Your task to perform on an android device: How do I get to the nearest T-Mobile Store? Image 0: 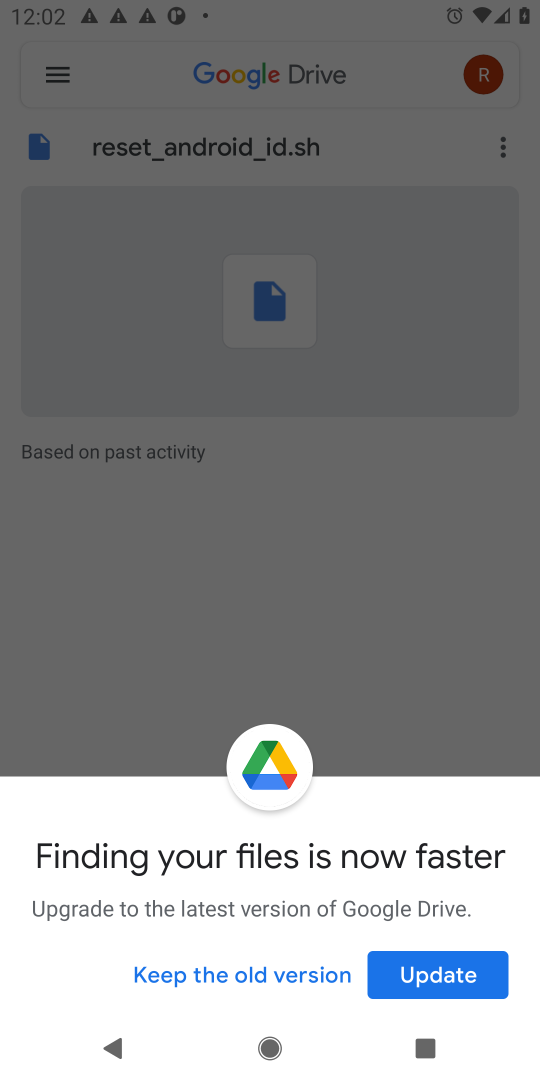
Step 0: click (370, 848)
Your task to perform on an android device: How do I get to the nearest T-Mobile Store? Image 1: 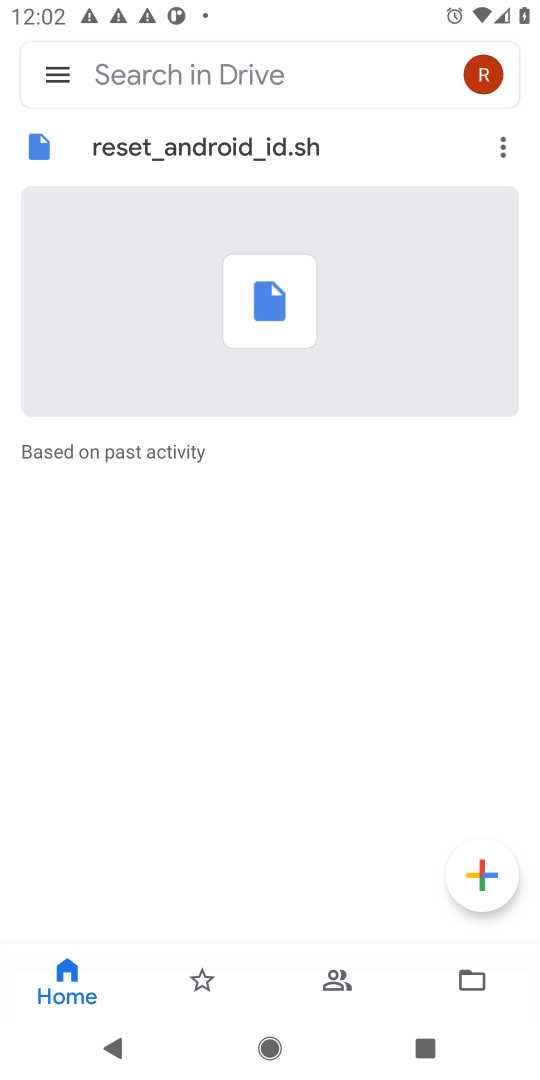
Step 1: press home button
Your task to perform on an android device: How do I get to the nearest T-Mobile Store? Image 2: 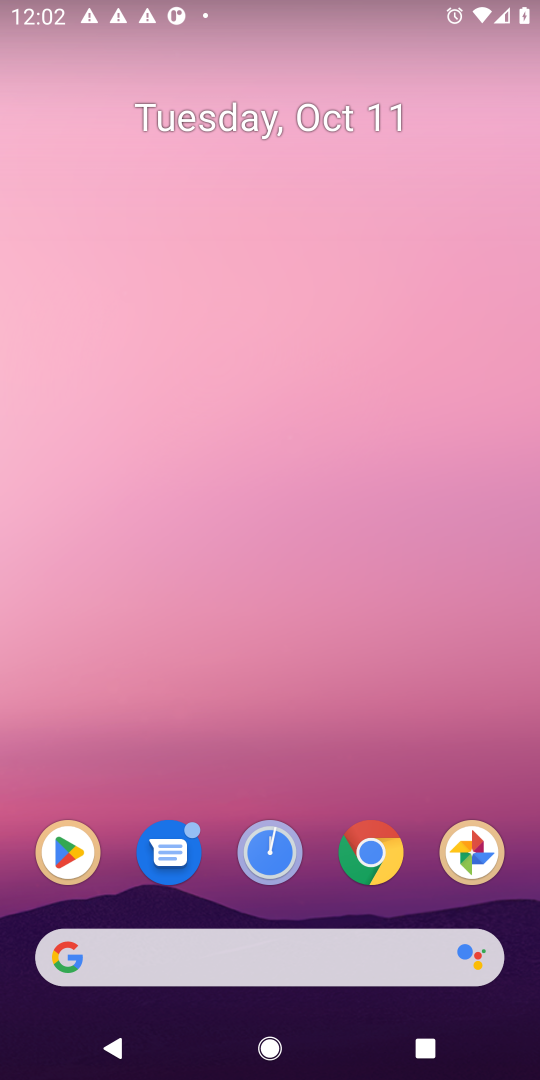
Step 2: click (373, 851)
Your task to perform on an android device: How do I get to the nearest T-Mobile Store? Image 3: 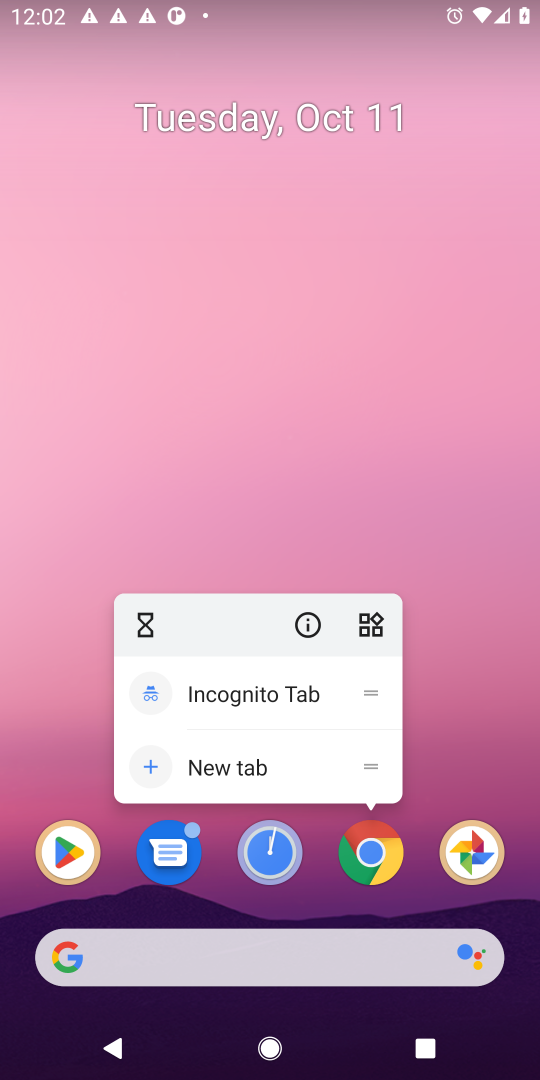
Step 3: click (373, 851)
Your task to perform on an android device: How do I get to the nearest T-Mobile Store? Image 4: 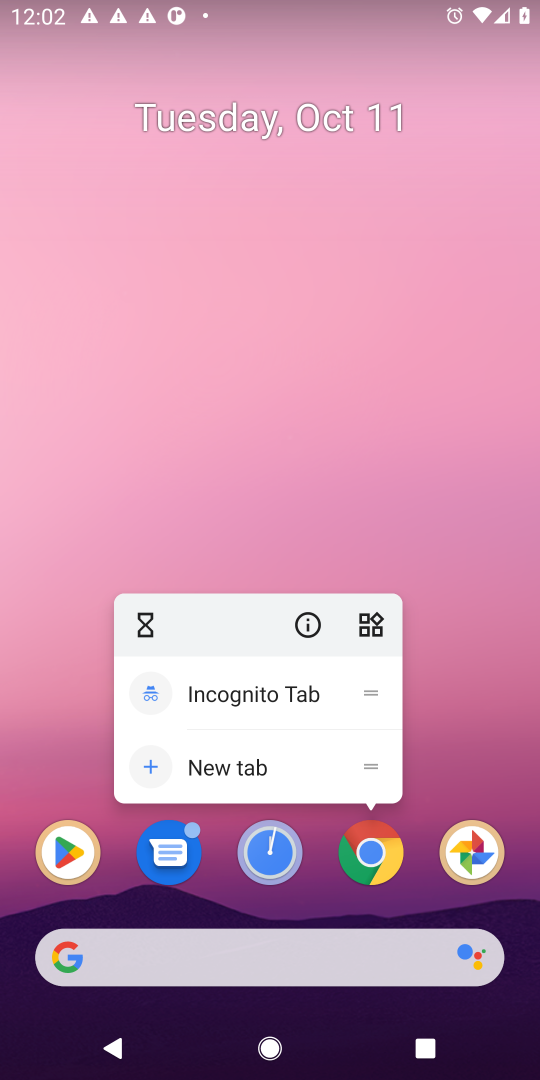
Step 4: click (373, 851)
Your task to perform on an android device: How do I get to the nearest T-Mobile Store? Image 5: 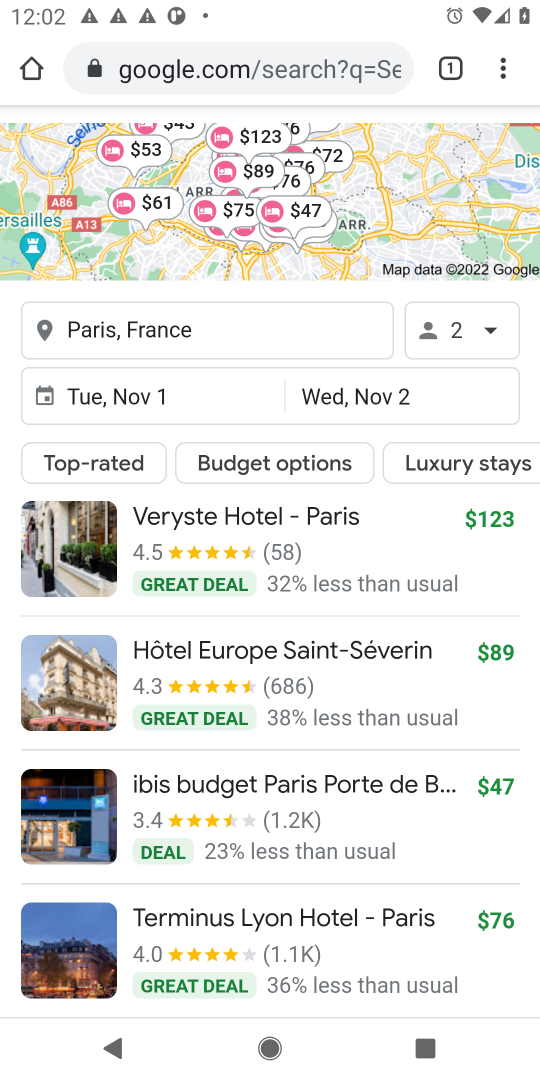
Step 5: click (198, 65)
Your task to perform on an android device: How do I get to the nearest T-Mobile Store? Image 6: 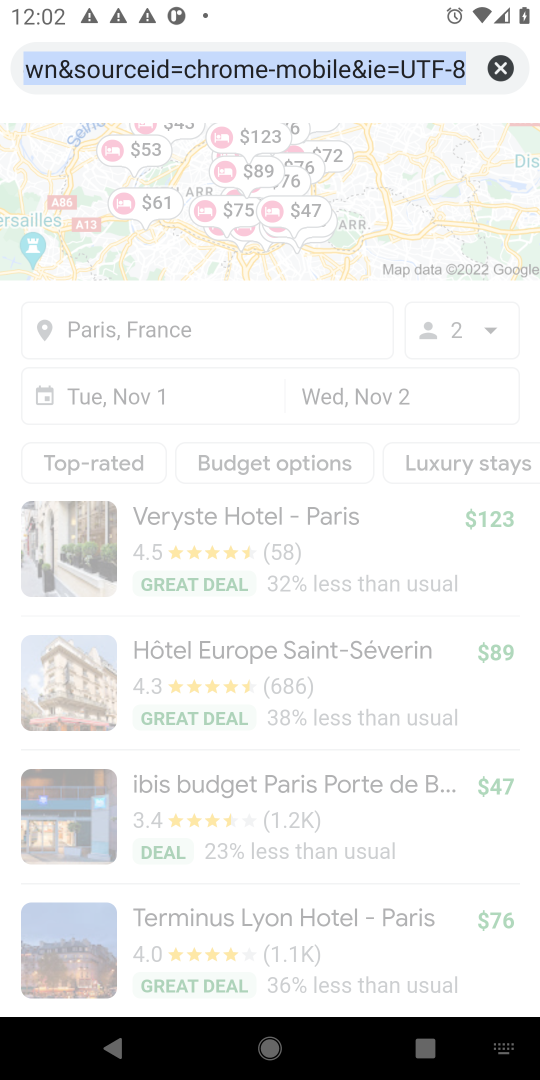
Step 6: type "How do I get to the nearest T-Mobile Store?"
Your task to perform on an android device: How do I get to the nearest T-Mobile Store? Image 7: 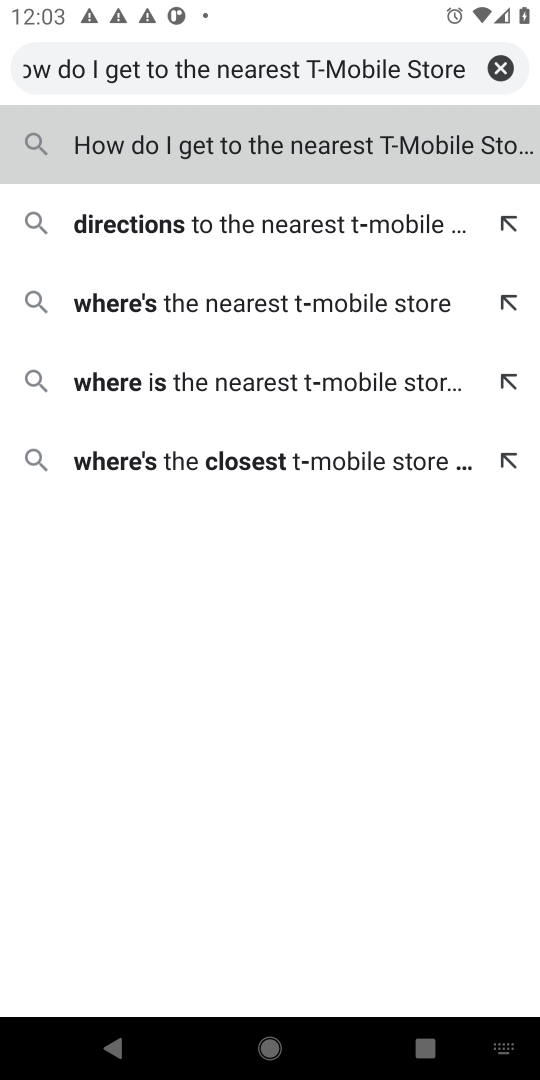
Step 7: click (510, 141)
Your task to perform on an android device: How do I get to the nearest T-Mobile Store? Image 8: 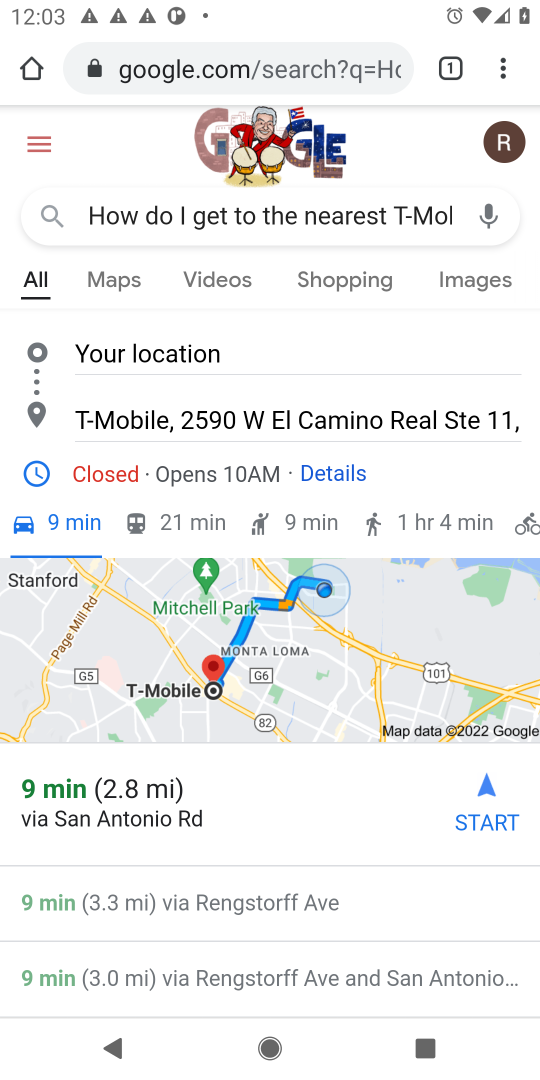
Step 8: task complete